Your task to perform on an android device: Open Google Maps and go to "Timeline" Image 0: 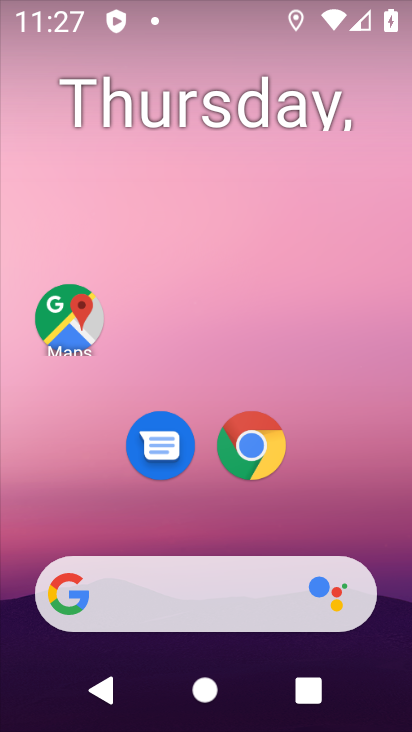
Step 0: click (279, 59)
Your task to perform on an android device: Open Google Maps and go to "Timeline" Image 1: 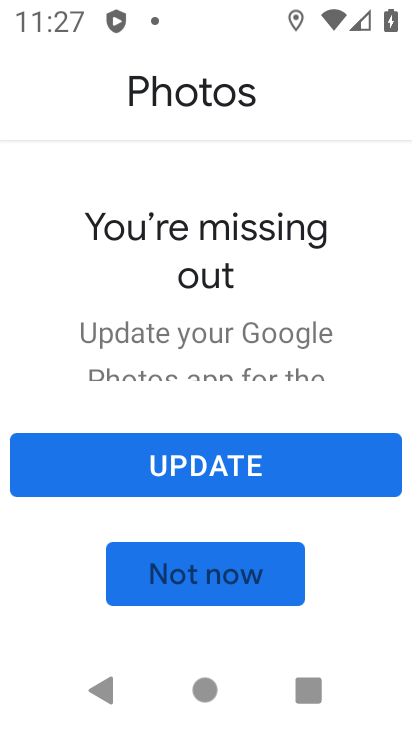
Step 1: press home button
Your task to perform on an android device: Open Google Maps and go to "Timeline" Image 2: 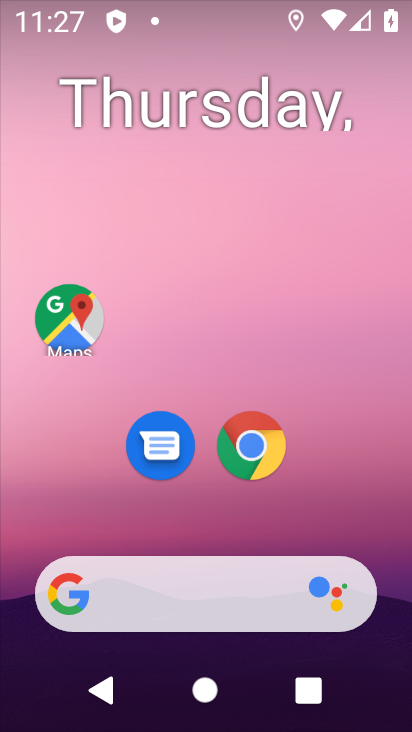
Step 2: drag from (394, 640) to (329, 86)
Your task to perform on an android device: Open Google Maps and go to "Timeline" Image 3: 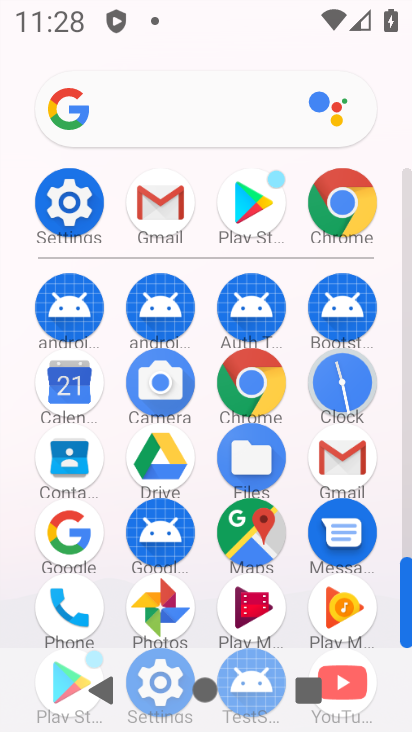
Step 3: click (256, 536)
Your task to perform on an android device: Open Google Maps and go to "Timeline" Image 4: 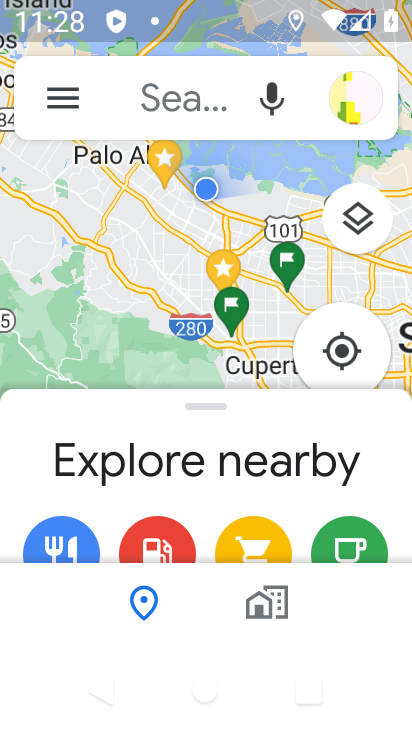
Step 4: click (69, 92)
Your task to perform on an android device: Open Google Maps and go to "Timeline" Image 5: 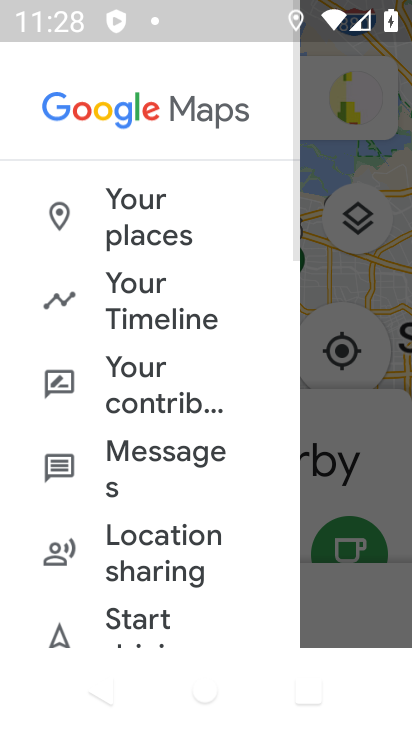
Step 5: click (180, 312)
Your task to perform on an android device: Open Google Maps and go to "Timeline" Image 6: 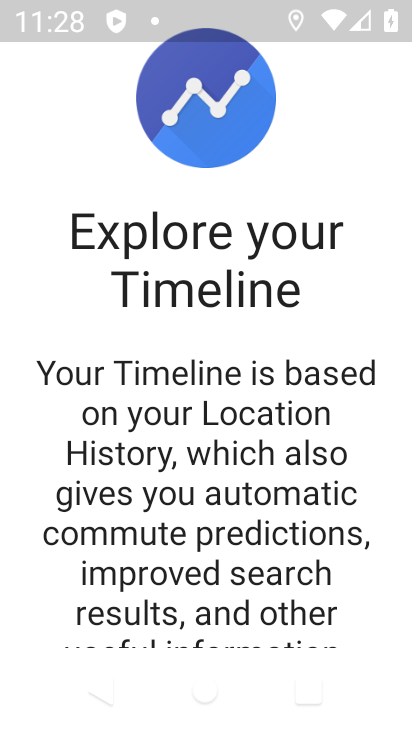
Step 6: task complete